Your task to perform on an android device: turn off javascript in the chrome app Image 0: 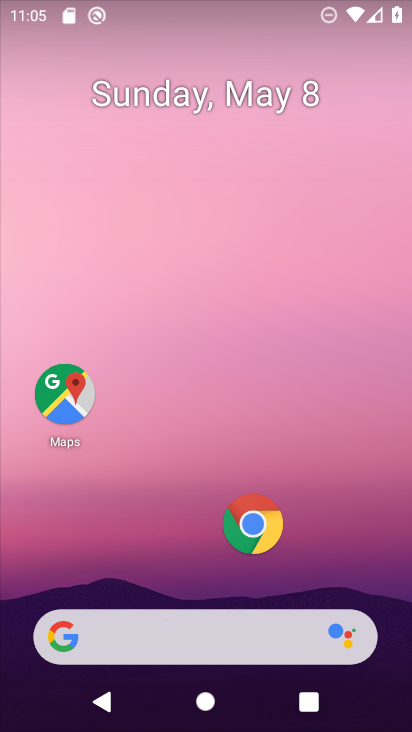
Step 0: drag from (199, 532) to (249, 60)
Your task to perform on an android device: turn off javascript in the chrome app Image 1: 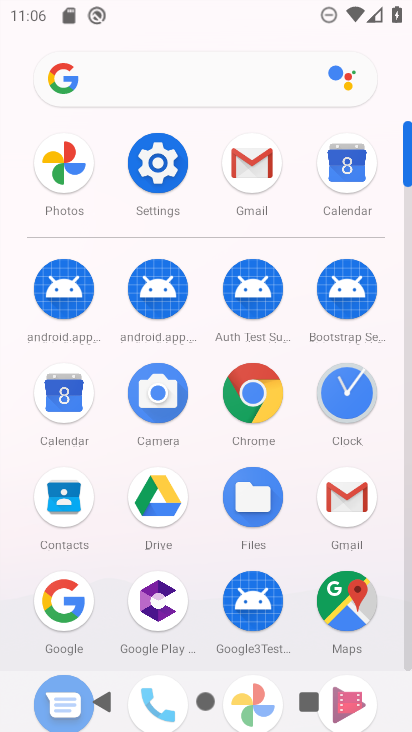
Step 1: click (250, 390)
Your task to perform on an android device: turn off javascript in the chrome app Image 2: 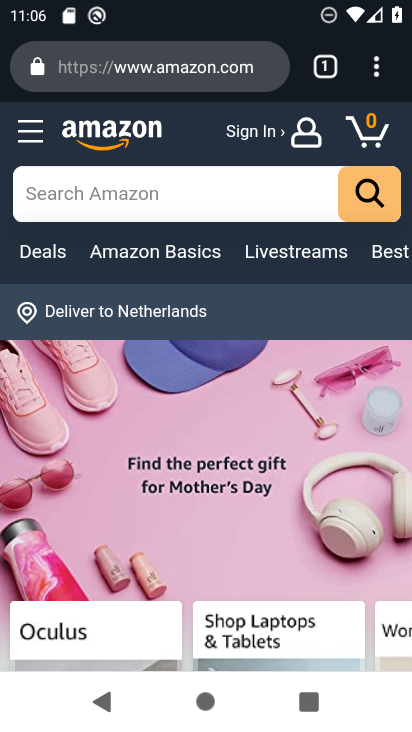
Step 2: drag from (374, 73) to (318, 253)
Your task to perform on an android device: turn off javascript in the chrome app Image 3: 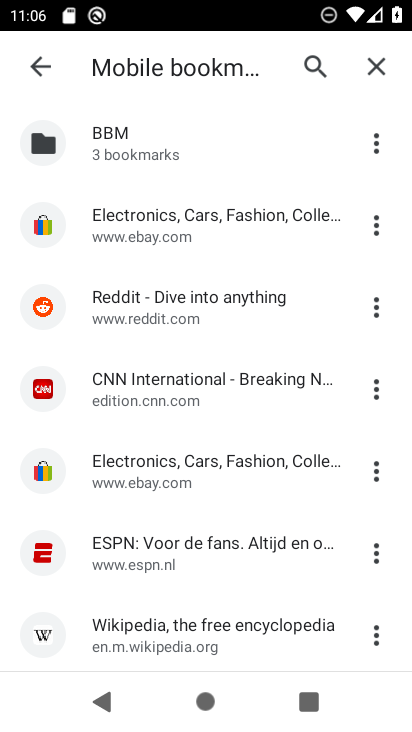
Step 3: click (45, 64)
Your task to perform on an android device: turn off javascript in the chrome app Image 4: 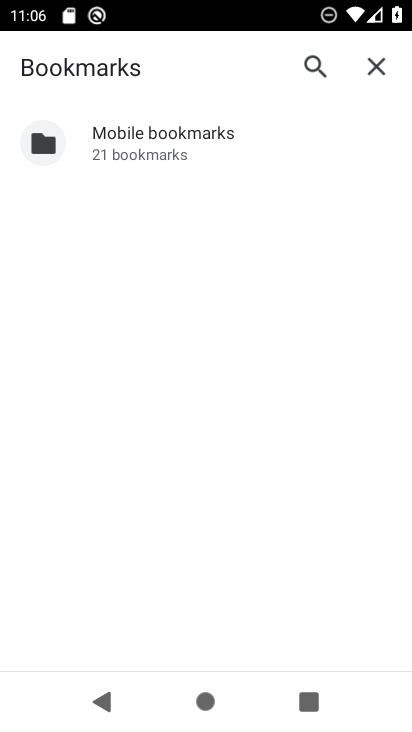
Step 4: click (373, 63)
Your task to perform on an android device: turn off javascript in the chrome app Image 5: 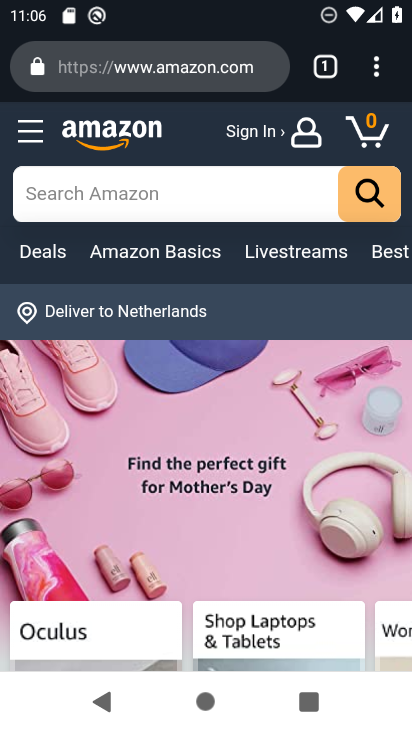
Step 5: click (375, 78)
Your task to perform on an android device: turn off javascript in the chrome app Image 6: 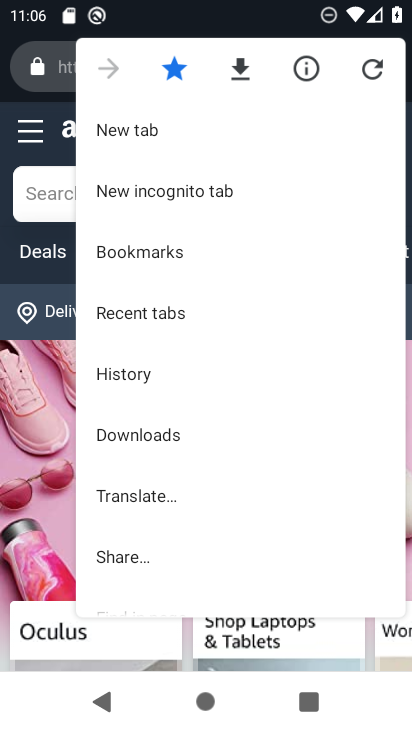
Step 6: drag from (248, 528) to (315, 122)
Your task to perform on an android device: turn off javascript in the chrome app Image 7: 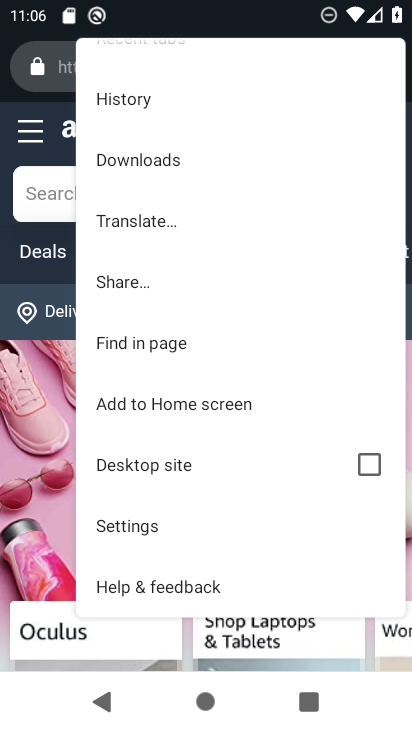
Step 7: drag from (196, 496) to (253, 140)
Your task to perform on an android device: turn off javascript in the chrome app Image 8: 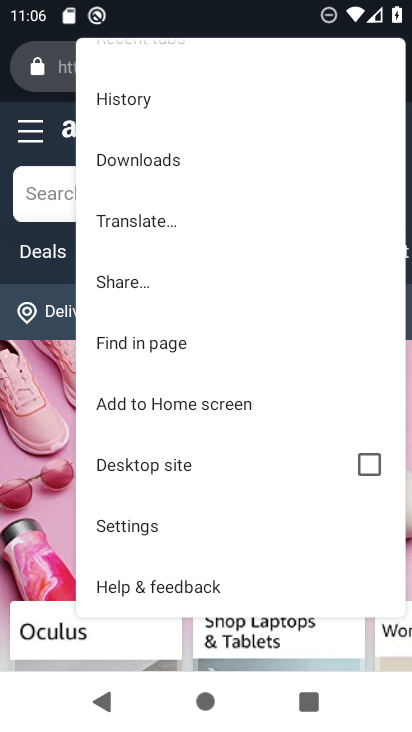
Step 8: click (164, 528)
Your task to perform on an android device: turn off javascript in the chrome app Image 9: 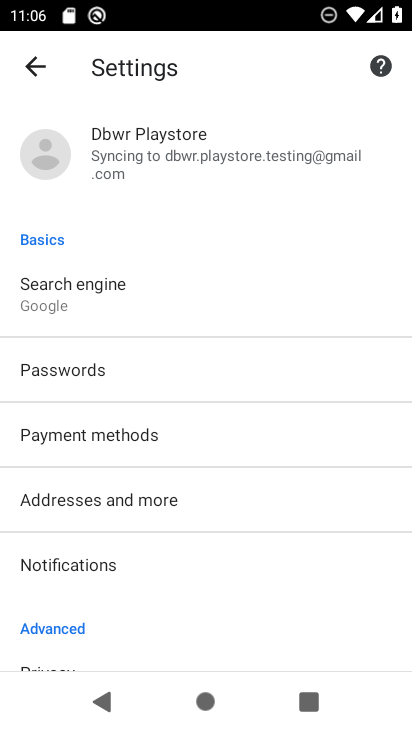
Step 9: drag from (229, 595) to (289, 171)
Your task to perform on an android device: turn off javascript in the chrome app Image 10: 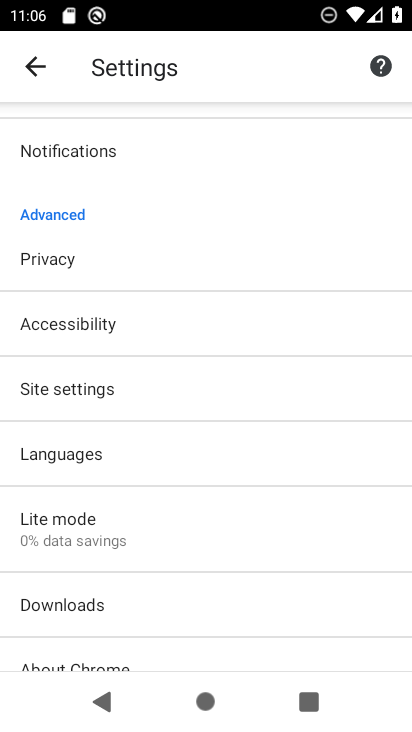
Step 10: click (201, 394)
Your task to perform on an android device: turn off javascript in the chrome app Image 11: 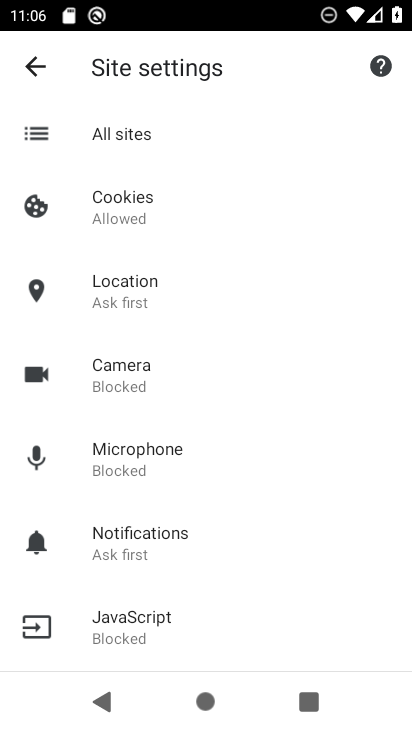
Step 11: click (182, 616)
Your task to perform on an android device: turn off javascript in the chrome app Image 12: 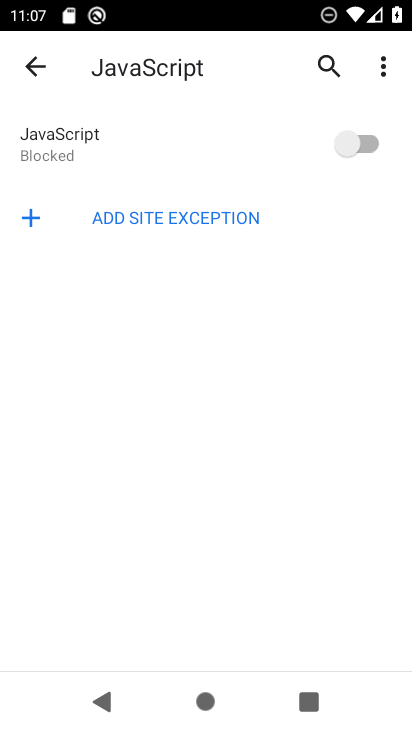
Step 12: task complete